Your task to perform on an android device: open chrome and create a bookmark for the current page Image 0: 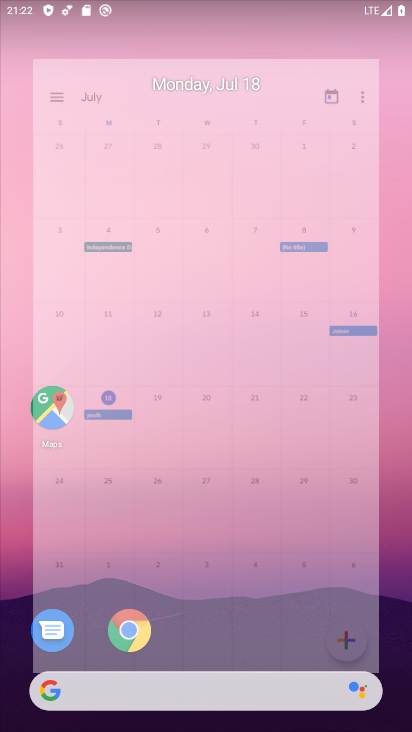
Step 0: drag from (289, 645) to (313, 249)
Your task to perform on an android device: open chrome and create a bookmark for the current page Image 1: 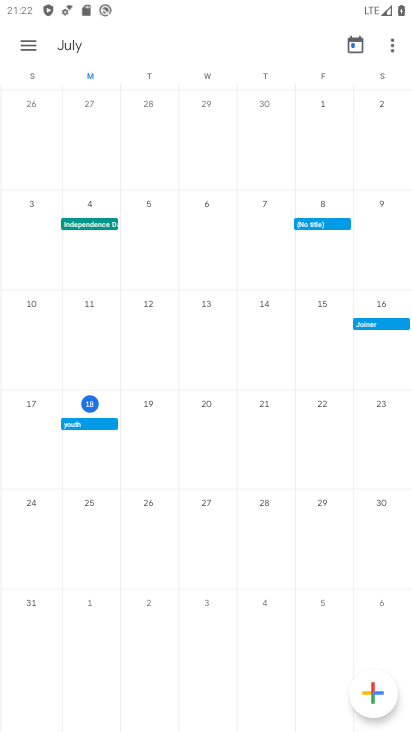
Step 1: press home button
Your task to perform on an android device: open chrome and create a bookmark for the current page Image 2: 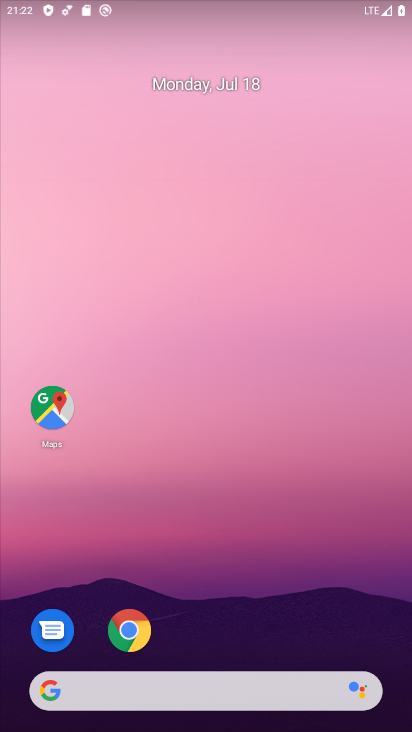
Step 2: drag from (215, 645) to (240, 314)
Your task to perform on an android device: open chrome and create a bookmark for the current page Image 3: 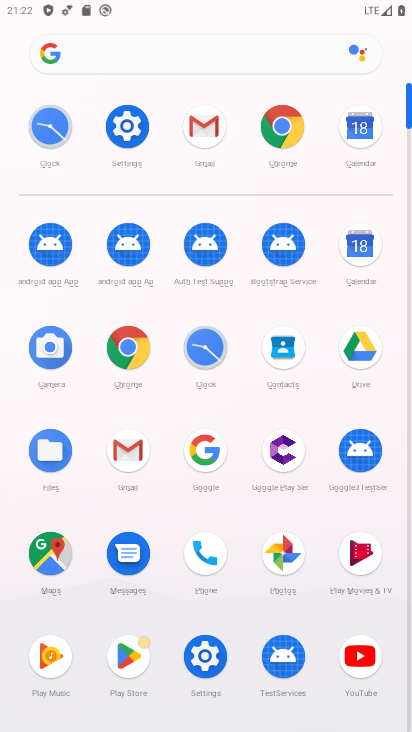
Step 3: click (286, 128)
Your task to perform on an android device: open chrome and create a bookmark for the current page Image 4: 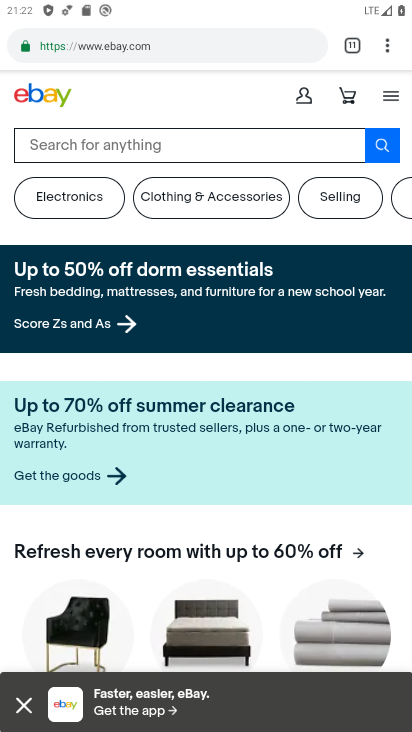
Step 4: click (383, 42)
Your task to perform on an android device: open chrome and create a bookmark for the current page Image 5: 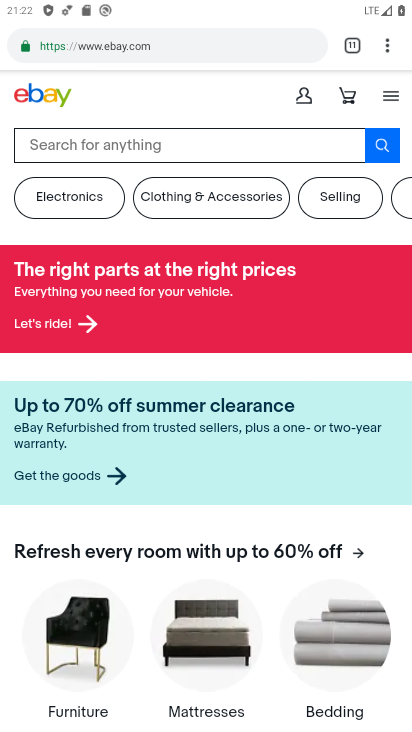
Step 5: click (379, 51)
Your task to perform on an android device: open chrome and create a bookmark for the current page Image 6: 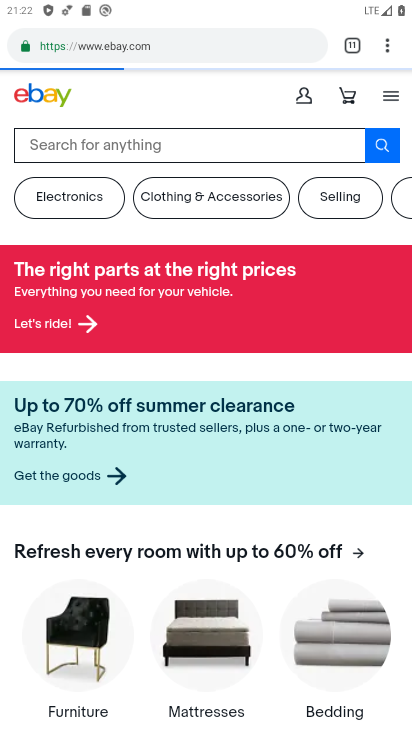
Step 6: click (375, 45)
Your task to perform on an android device: open chrome and create a bookmark for the current page Image 7: 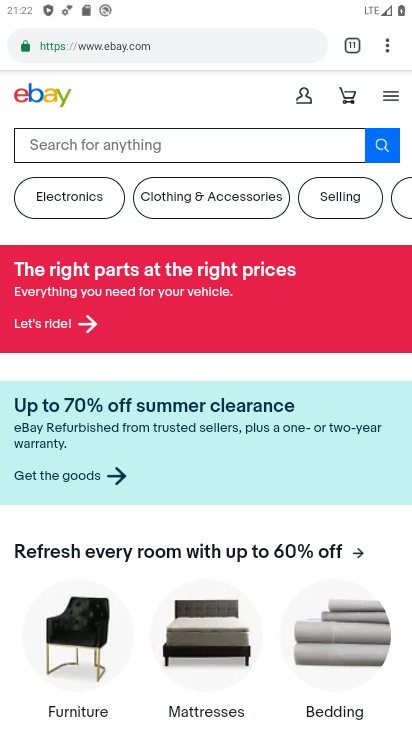
Step 7: click (359, 46)
Your task to perform on an android device: open chrome and create a bookmark for the current page Image 8: 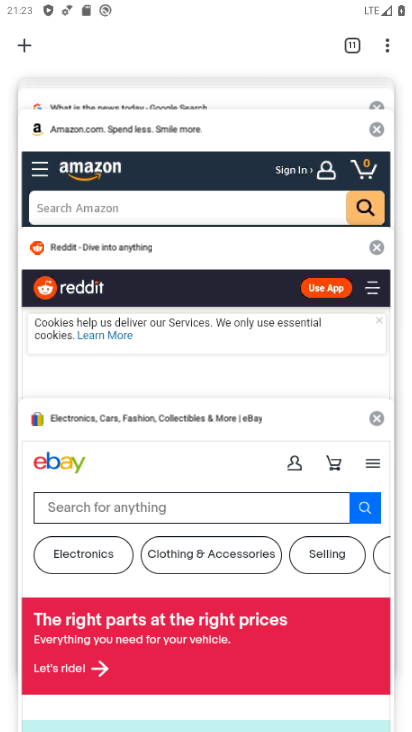
Step 8: click (255, 309)
Your task to perform on an android device: open chrome and create a bookmark for the current page Image 9: 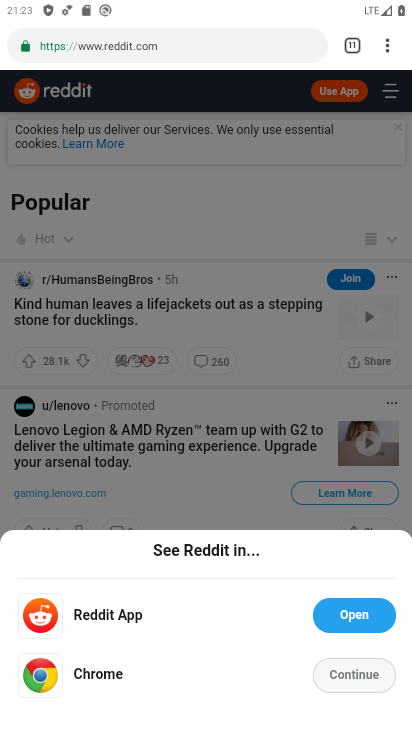
Step 9: click (393, 38)
Your task to perform on an android device: open chrome and create a bookmark for the current page Image 10: 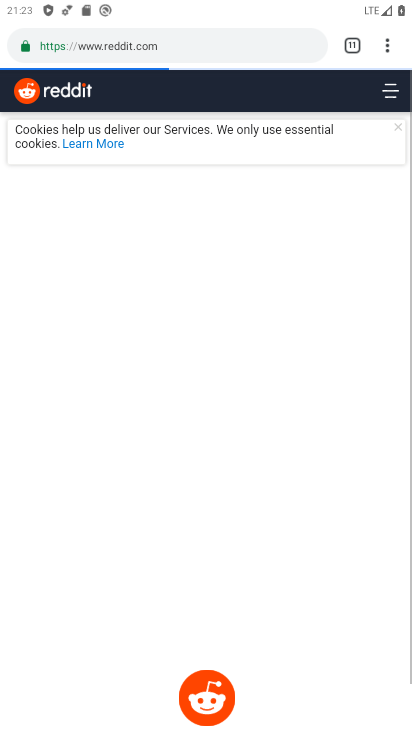
Step 10: click (389, 37)
Your task to perform on an android device: open chrome and create a bookmark for the current page Image 11: 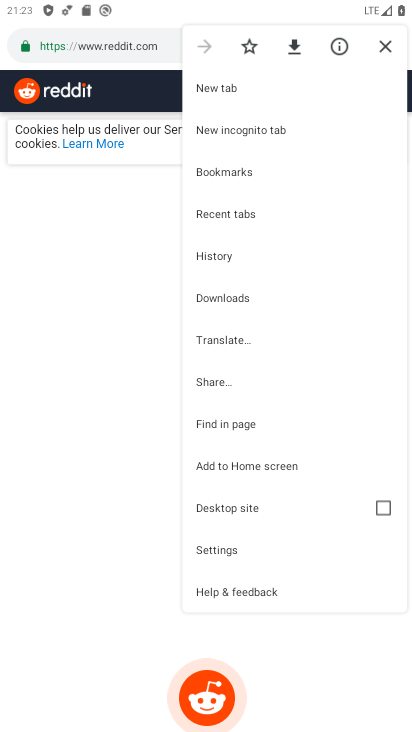
Step 11: click (250, 51)
Your task to perform on an android device: open chrome and create a bookmark for the current page Image 12: 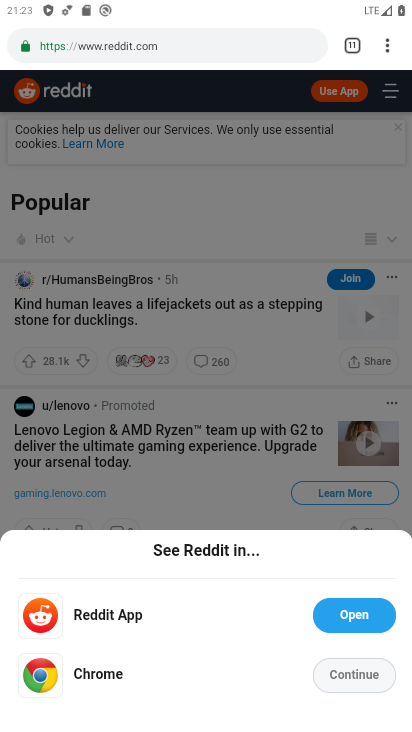
Step 12: task complete